Your task to perform on an android device: Set the phone to "Do not disturb". Image 0: 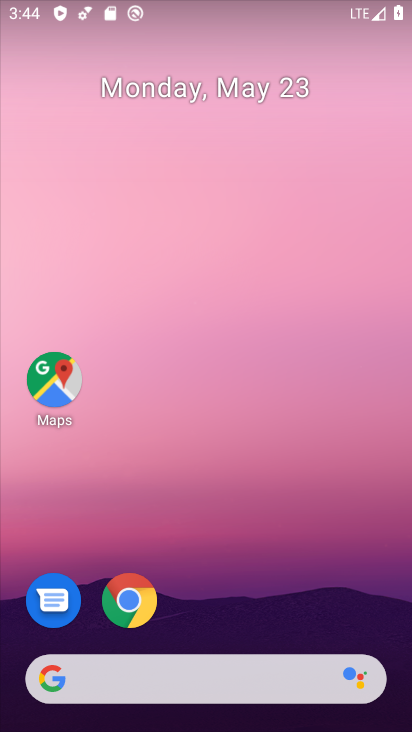
Step 0: drag from (340, 597) to (305, 6)
Your task to perform on an android device: Set the phone to "Do not disturb". Image 1: 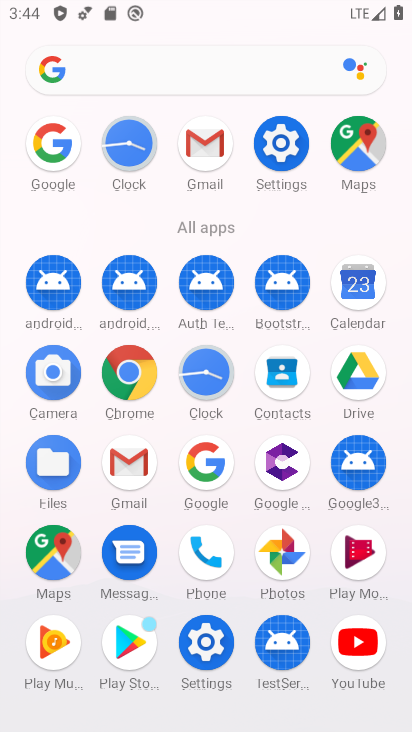
Step 1: click (285, 147)
Your task to perform on an android device: Set the phone to "Do not disturb". Image 2: 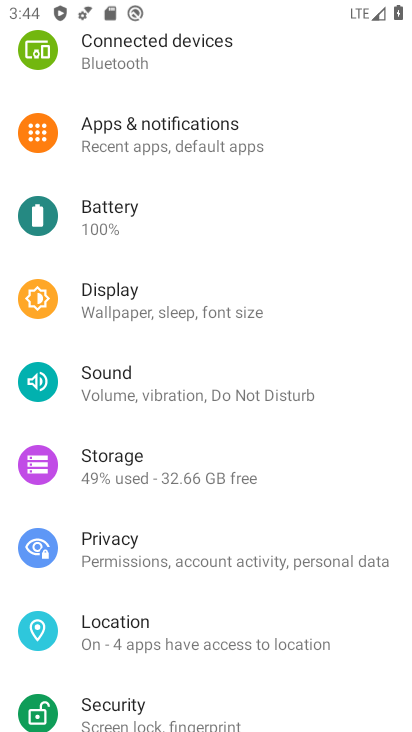
Step 2: click (105, 374)
Your task to perform on an android device: Set the phone to "Do not disturb". Image 3: 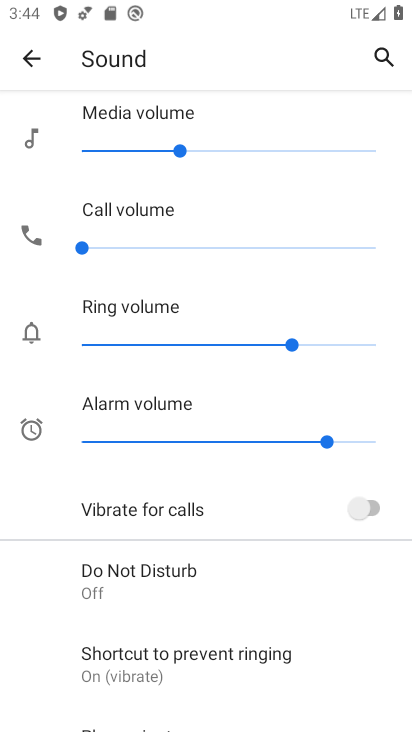
Step 3: click (135, 577)
Your task to perform on an android device: Set the phone to "Do not disturb". Image 4: 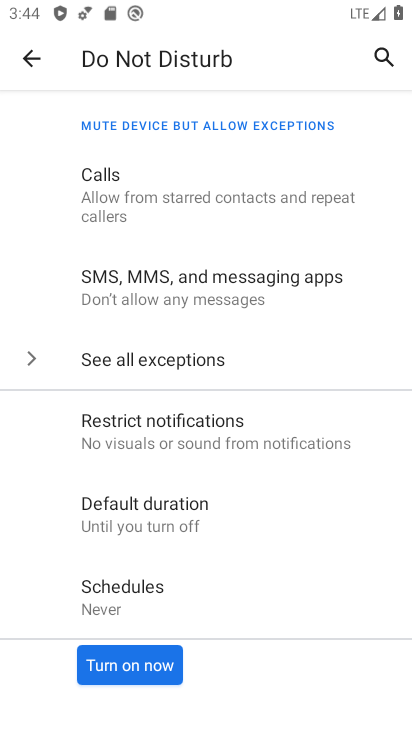
Step 4: click (139, 664)
Your task to perform on an android device: Set the phone to "Do not disturb". Image 5: 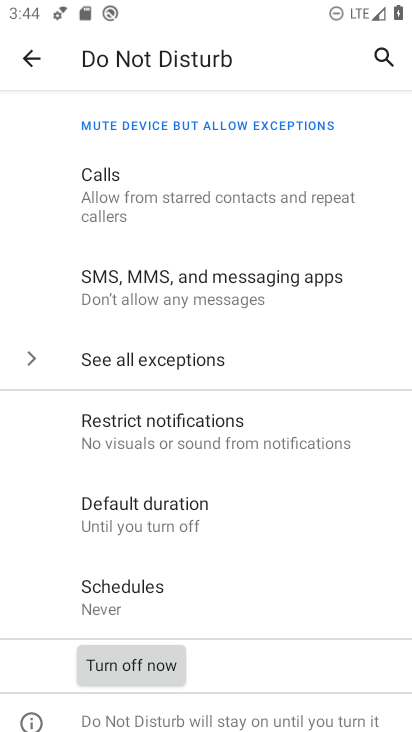
Step 5: task complete